Your task to perform on an android device: turn on javascript in the chrome app Image 0: 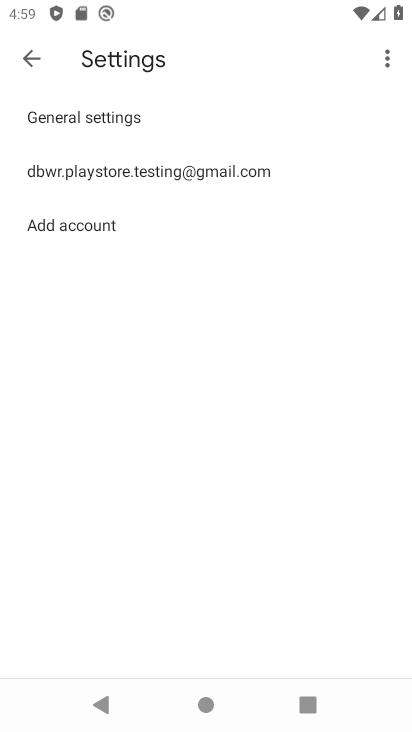
Step 0: press home button
Your task to perform on an android device: turn on javascript in the chrome app Image 1: 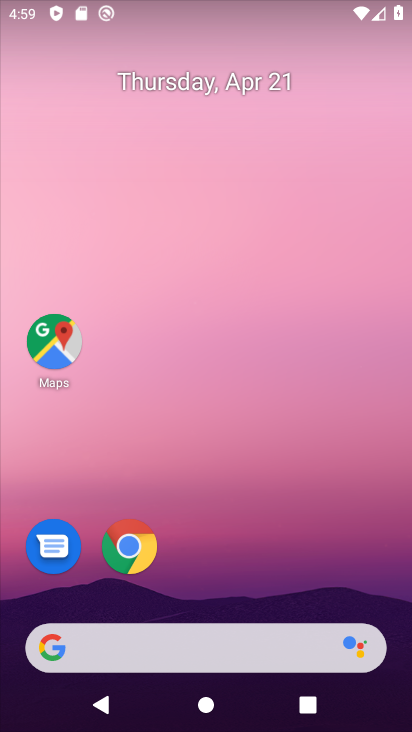
Step 1: click (131, 546)
Your task to perform on an android device: turn on javascript in the chrome app Image 2: 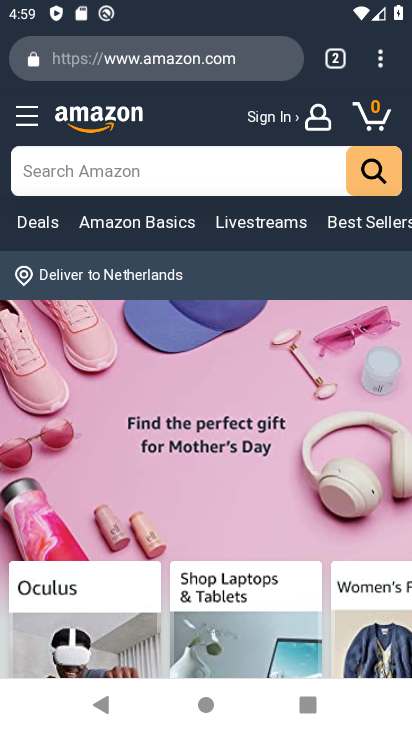
Step 2: click (379, 64)
Your task to perform on an android device: turn on javascript in the chrome app Image 3: 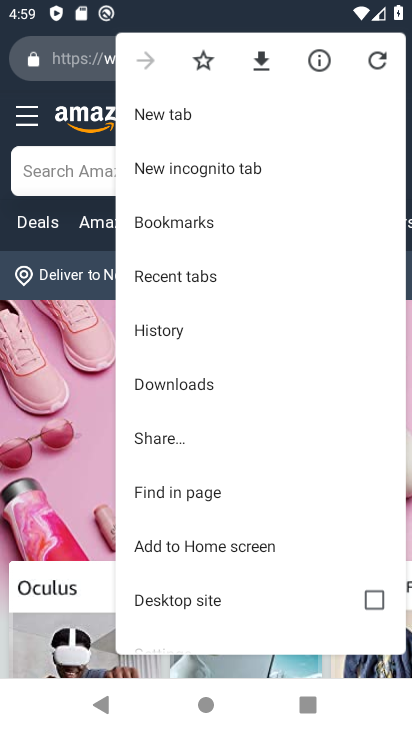
Step 3: drag from (193, 585) to (189, 228)
Your task to perform on an android device: turn on javascript in the chrome app Image 4: 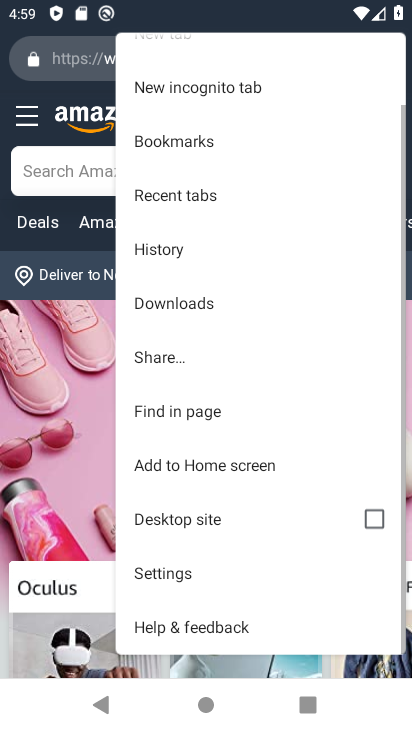
Step 4: click (186, 566)
Your task to perform on an android device: turn on javascript in the chrome app Image 5: 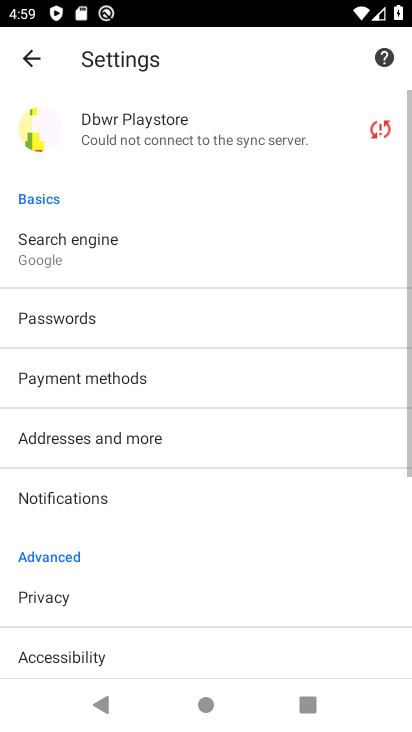
Step 5: drag from (135, 560) to (161, 239)
Your task to perform on an android device: turn on javascript in the chrome app Image 6: 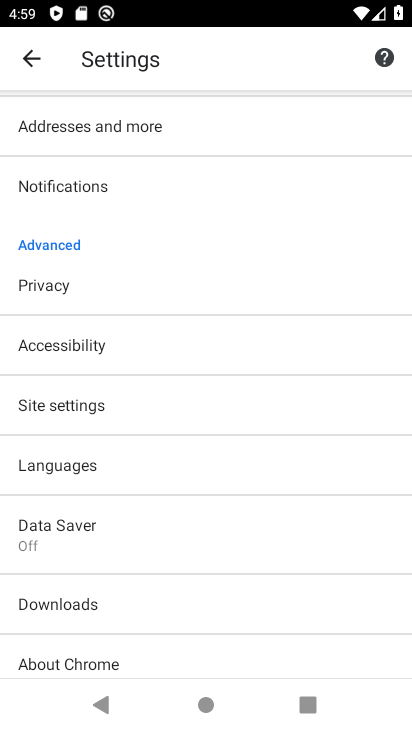
Step 6: click (87, 410)
Your task to perform on an android device: turn on javascript in the chrome app Image 7: 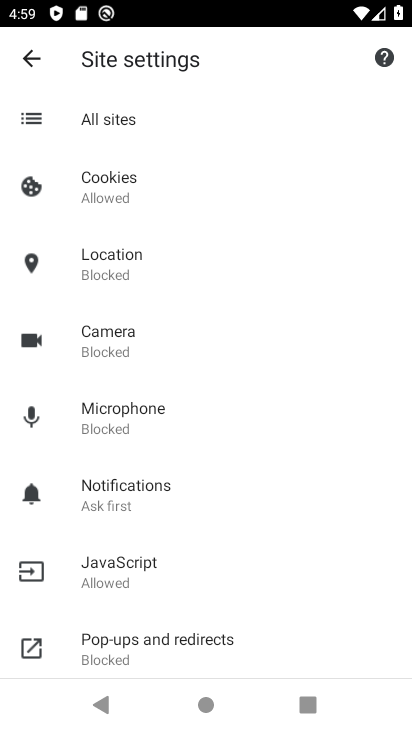
Step 7: click (125, 571)
Your task to perform on an android device: turn on javascript in the chrome app Image 8: 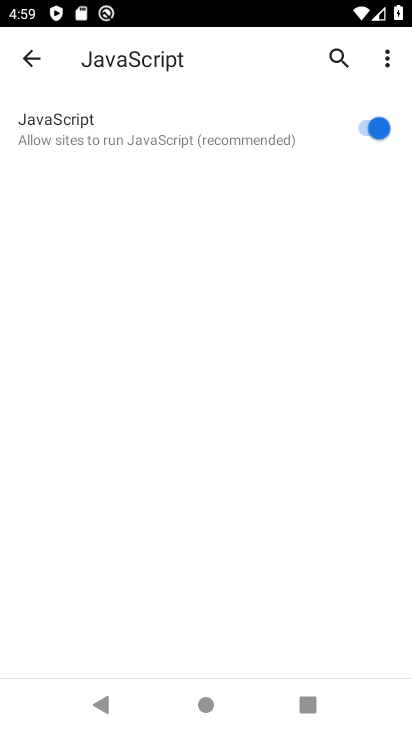
Step 8: task complete